Your task to perform on an android device: Check the news Image 0: 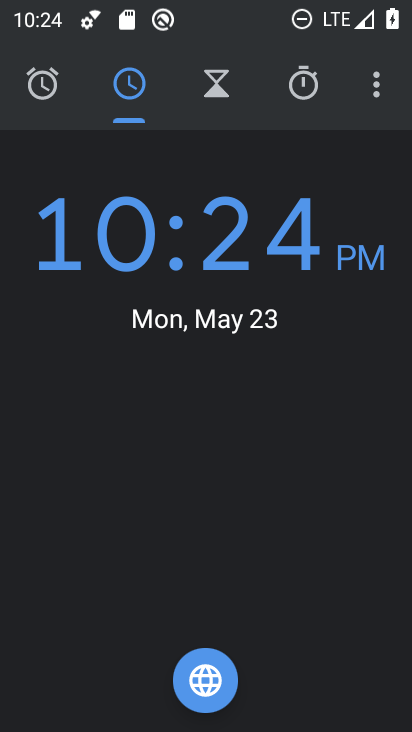
Step 0: press home button
Your task to perform on an android device: Check the news Image 1: 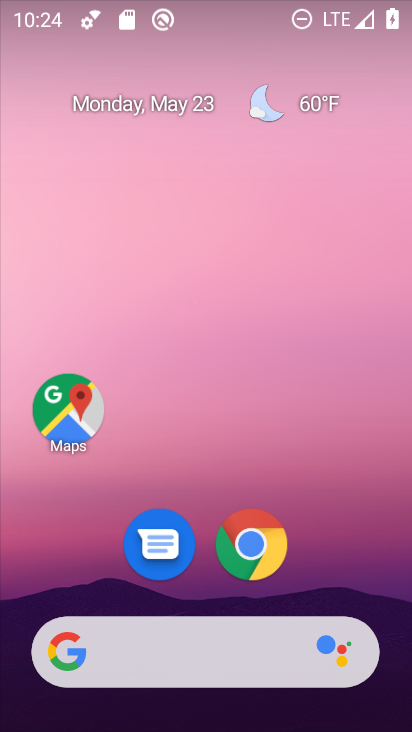
Step 1: click (246, 554)
Your task to perform on an android device: Check the news Image 2: 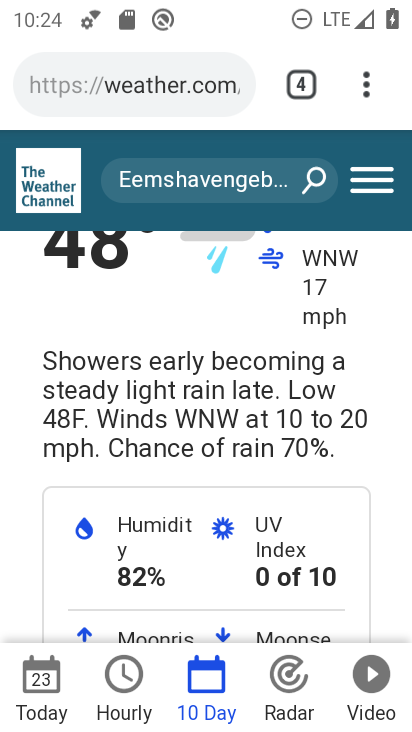
Step 2: click (309, 86)
Your task to perform on an android device: Check the news Image 3: 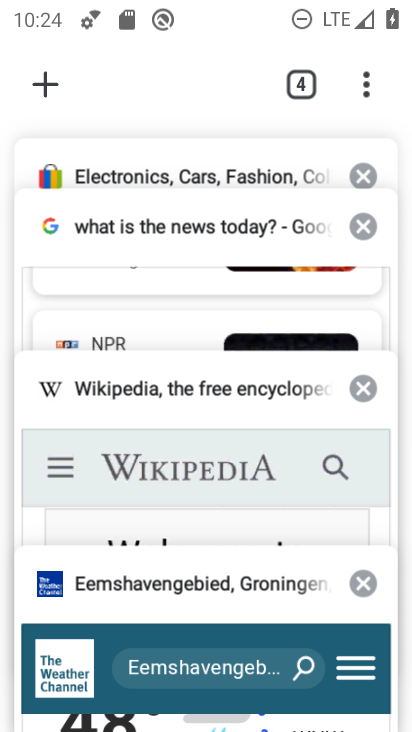
Step 3: click (144, 292)
Your task to perform on an android device: Check the news Image 4: 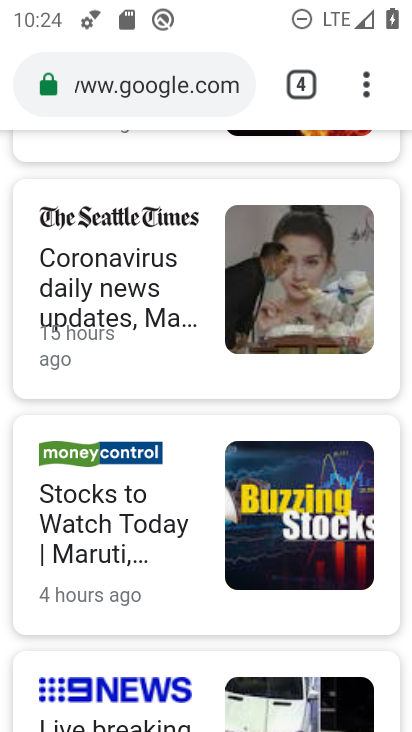
Step 4: task complete